Your task to perform on an android device: change your default location settings in chrome Image 0: 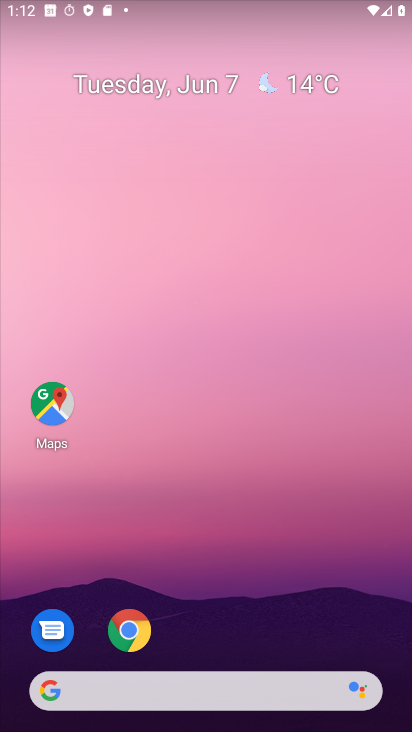
Step 0: click (138, 636)
Your task to perform on an android device: change your default location settings in chrome Image 1: 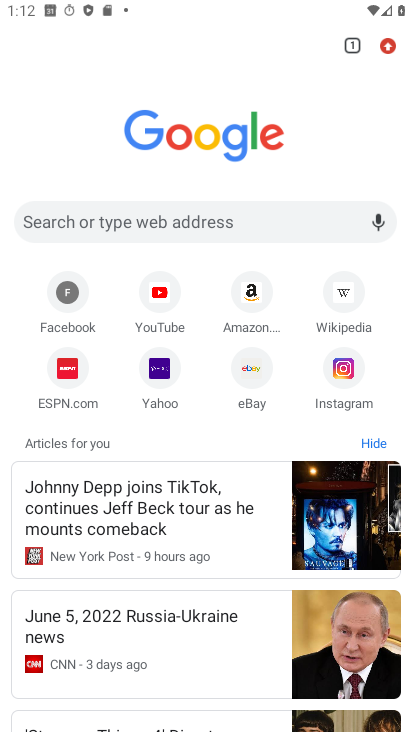
Step 1: click (396, 39)
Your task to perform on an android device: change your default location settings in chrome Image 2: 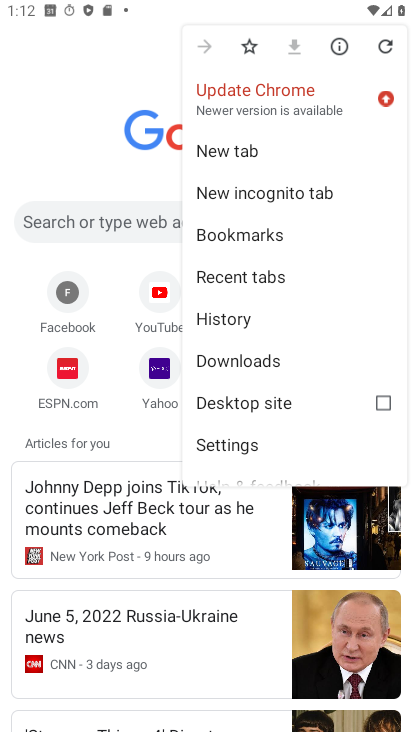
Step 2: click (228, 447)
Your task to perform on an android device: change your default location settings in chrome Image 3: 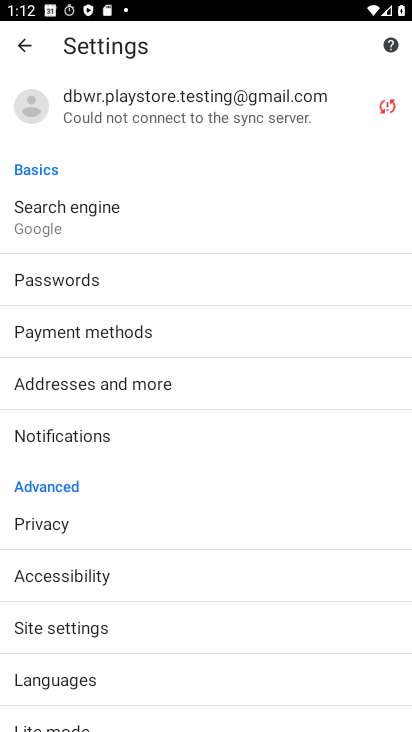
Step 3: click (86, 634)
Your task to perform on an android device: change your default location settings in chrome Image 4: 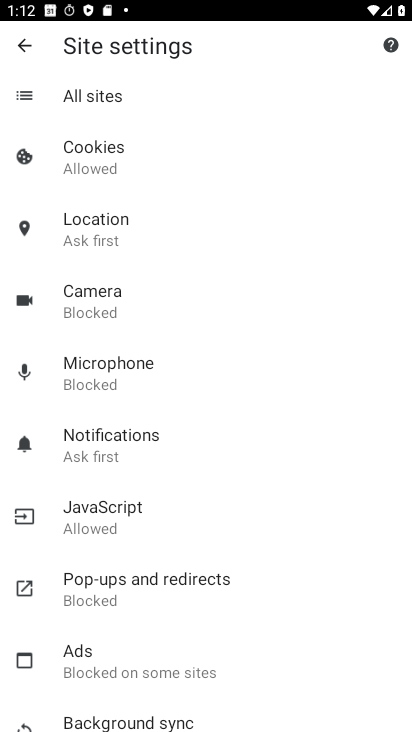
Step 4: click (98, 229)
Your task to perform on an android device: change your default location settings in chrome Image 5: 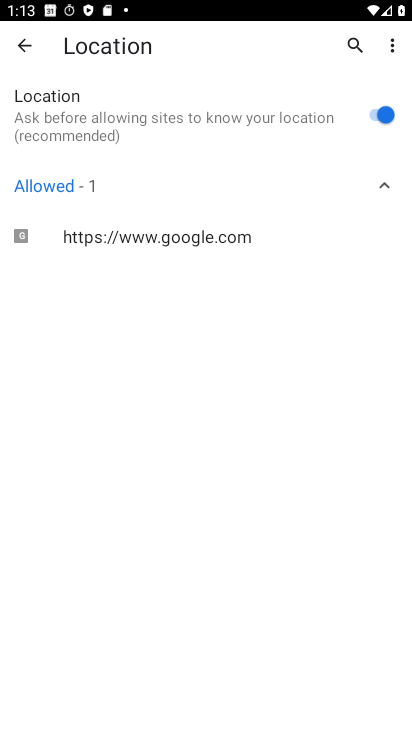
Step 5: click (357, 114)
Your task to perform on an android device: change your default location settings in chrome Image 6: 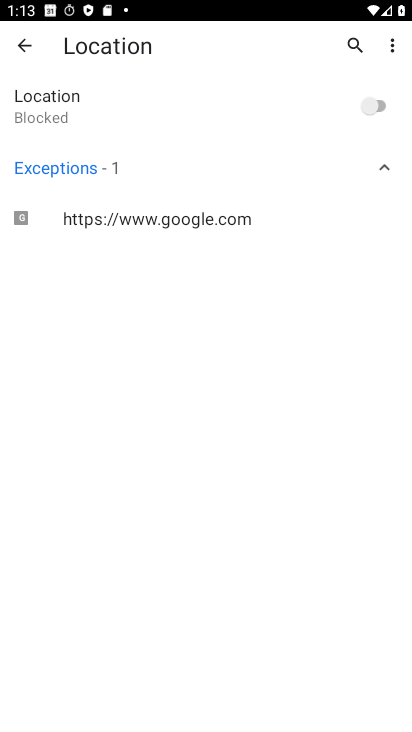
Step 6: task complete